Your task to perform on an android device: When is my next appointment? Image 0: 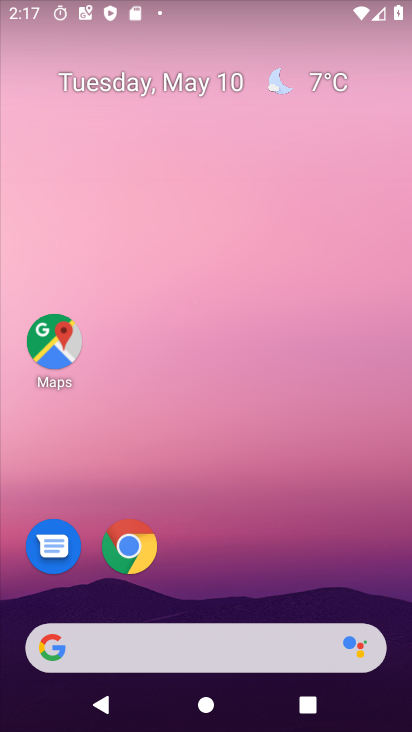
Step 0: drag from (312, 530) to (308, 199)
Your task to perform on an android device: When is my next appointment? Image 1: 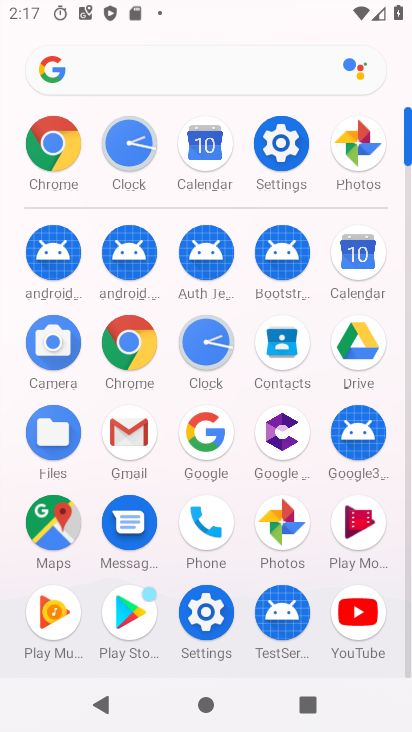
Step 1: click (366, 259)
Your task to perform on an android device: When is my next appointment? Image 2: 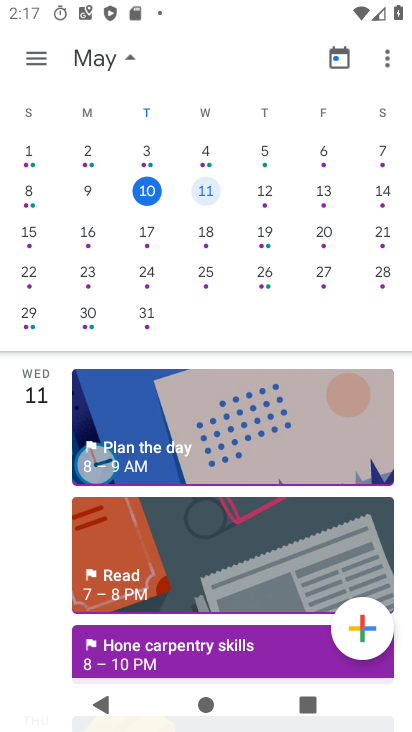
Step 2: click (265, 202)
Your task to perform on an android device: When is my next appointment? Image 3: 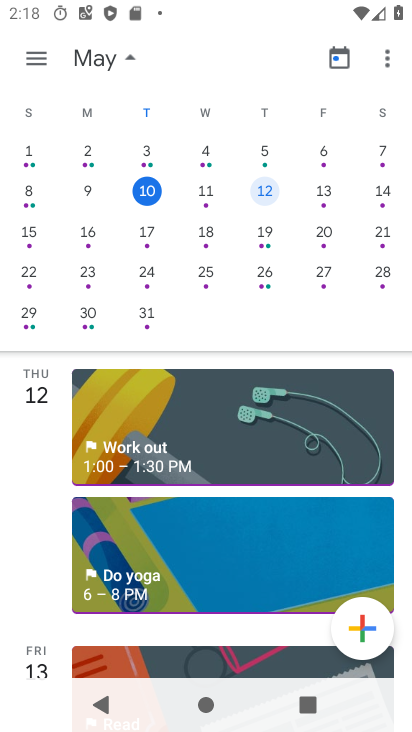
Step 3: task complete